Your task to perform on an android device: refresh tabs in the chrome app Image 0: 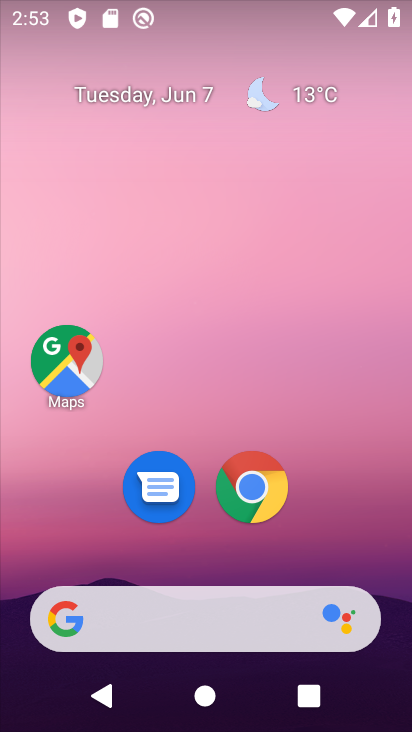
Step 0: drag from (276, 635) to (199, 137)
Your task to perform on an android device: refresh tabs in the chrome app Image 1: 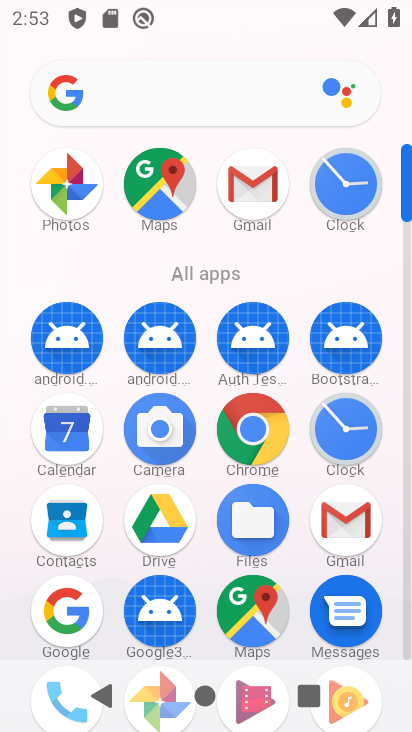
Step 1: click (257, 433)
Your task to perform on an android device: refresh tabs in the chrome app Image 2: 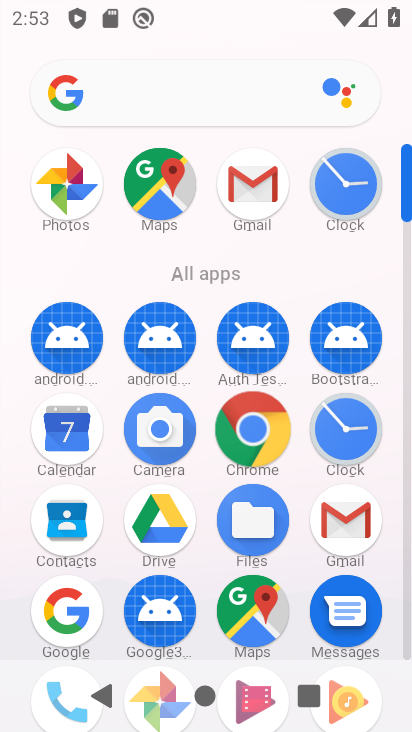
Step 2: click (251, 434)
Your task to perform on an android device: refresh tabs in the chrome app Image 3: 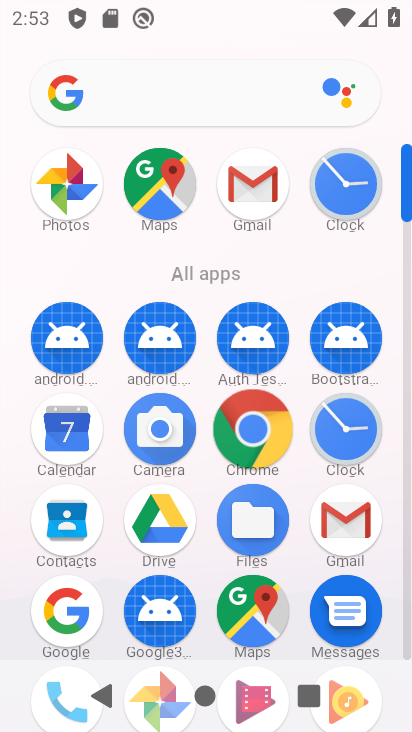
Step 3: click (240, 432)
Your task to perform on an android device: refresh tabs in the chrome app Image 4: 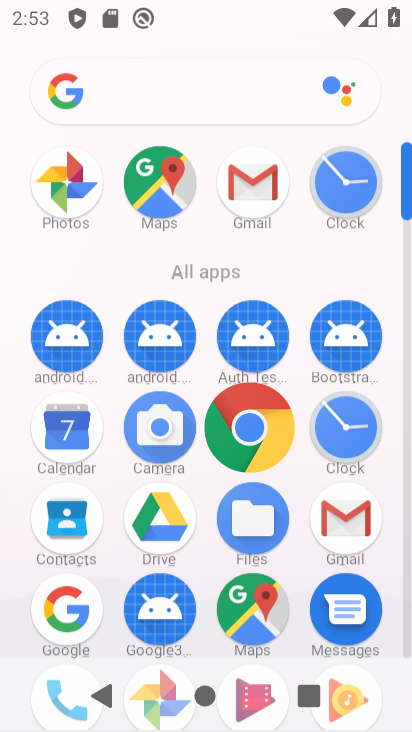
Step 4: click (233, 430)
Your task to perform on an android device: refresh tabs in the chrome app Image 5: 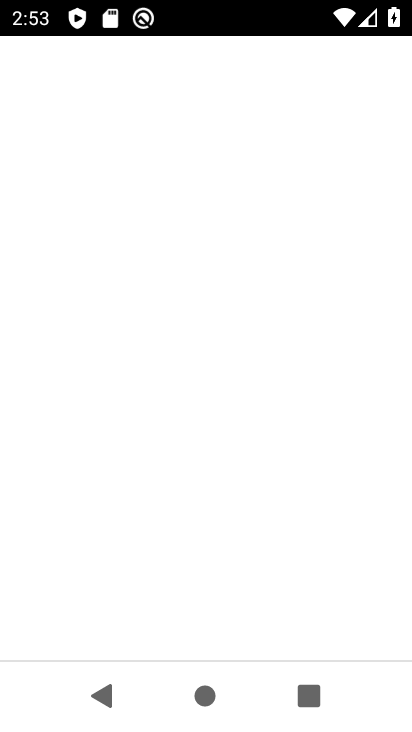
Step 5: click (242, 430)
Your task to perform on an android device: refresh tabs in the chrome app Image 6: 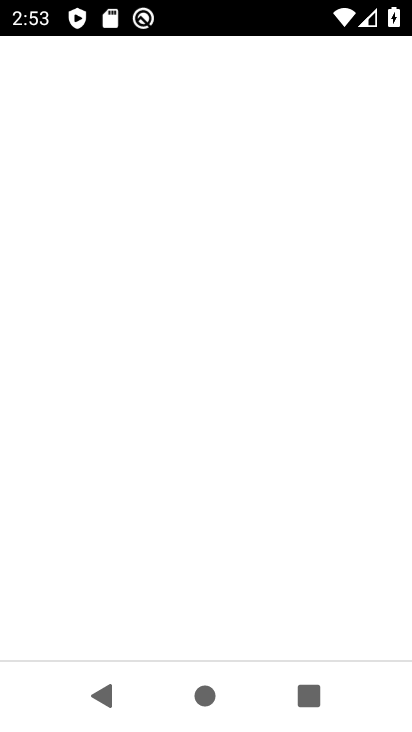
Step 6: click (242, 421)
Your task to perform on an android device: refresh tabs in the chrome app Image 7: 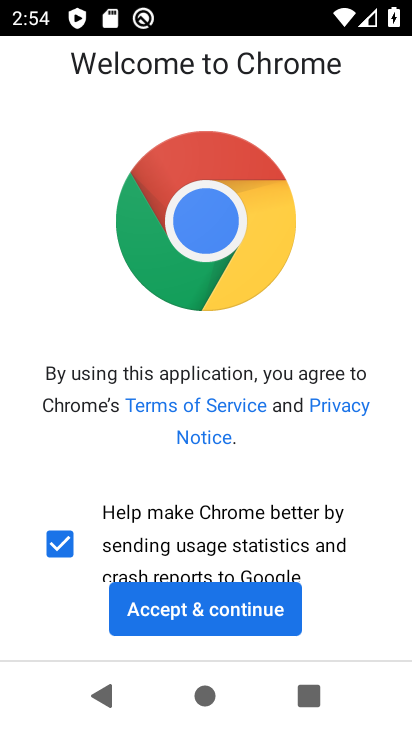
Step 7: click (223, 628)
Your task to perform on an android device: refresh tabs in the chrome app Image 8: 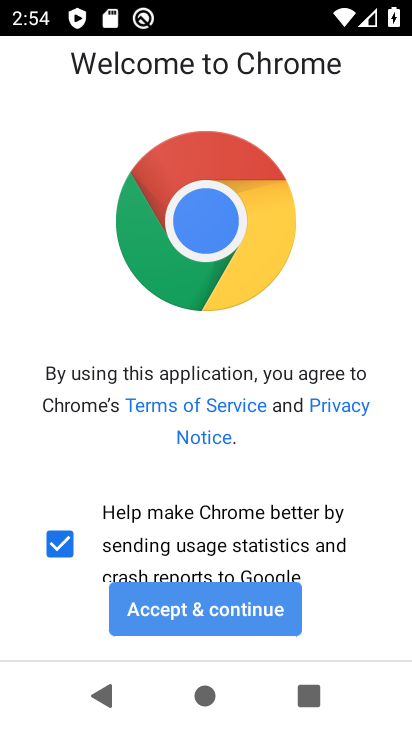
Step 8: click (217, 620)
Your task to perform on an android device: refresh tabs in the chrome app Image 9: 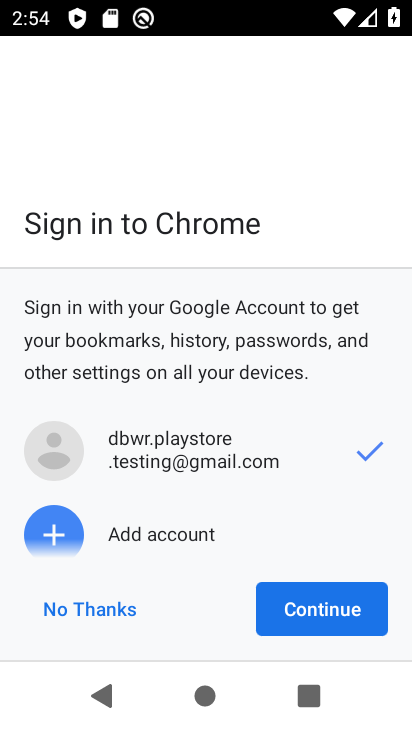
Step 9: click (215, 617)
Your task to perform on an android device: refresh tabs in the chrome app Image 10: 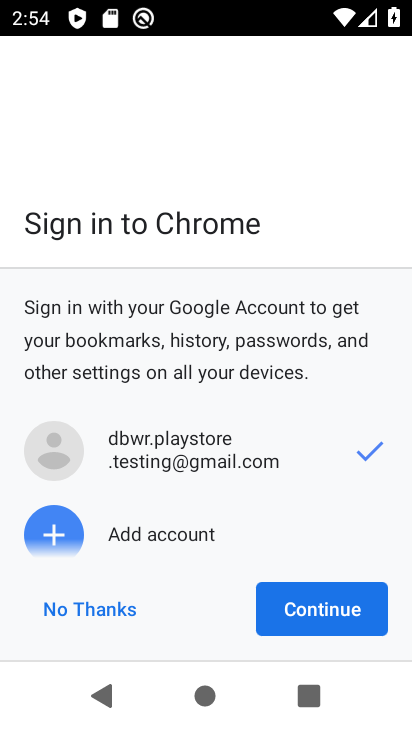
Step 10: click (218, 609)
Your task to perform on an android device: refresh tabs in the chrome app Image 11: 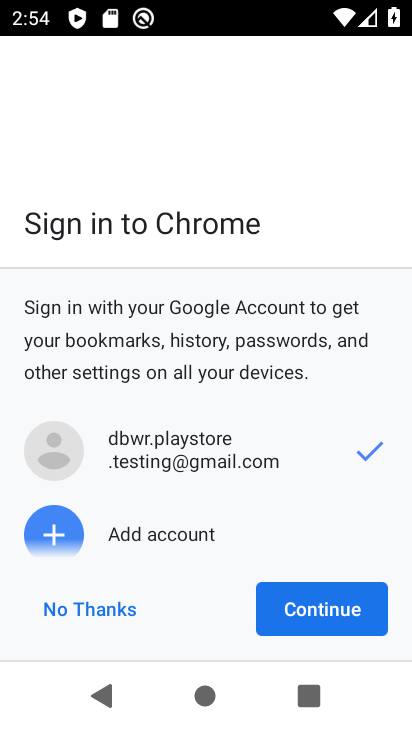
Step 11: click (327, 606)
Your task to perform on an android device: refresh tabs in the chrome app Image 12: 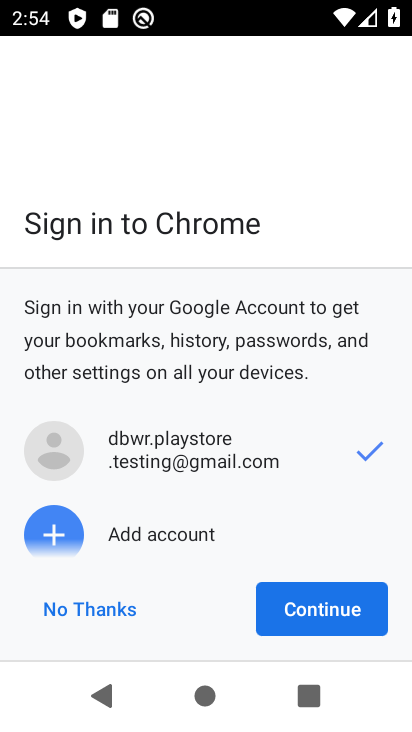
Step 12: click (328, 606)
Your task to perform on an android device: refresh tabs in the chrome app Image 13: 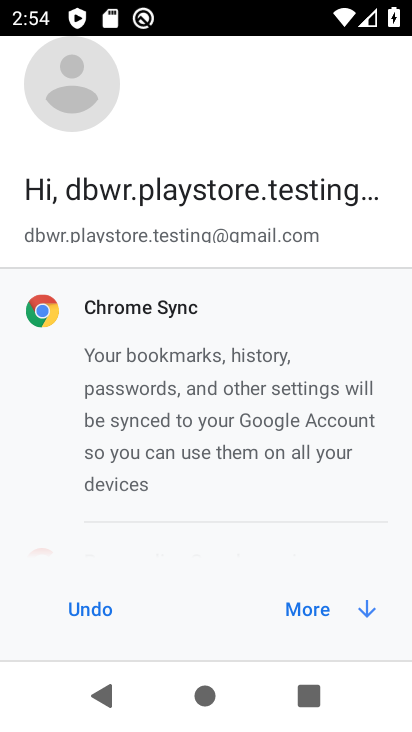
Step 13: click (329, 607)
Your task to perform on an android device: refresh tabs in the chrome app Image 14: 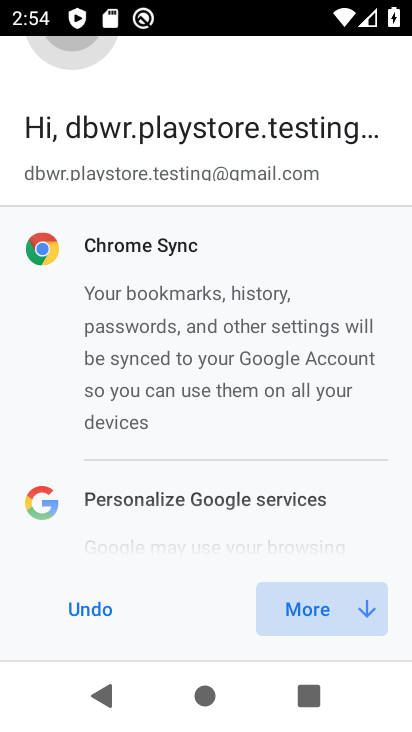
Step 14: click (329, 611)
Your task to perform on an android device: refresh tabs in the chrome app Image 15: 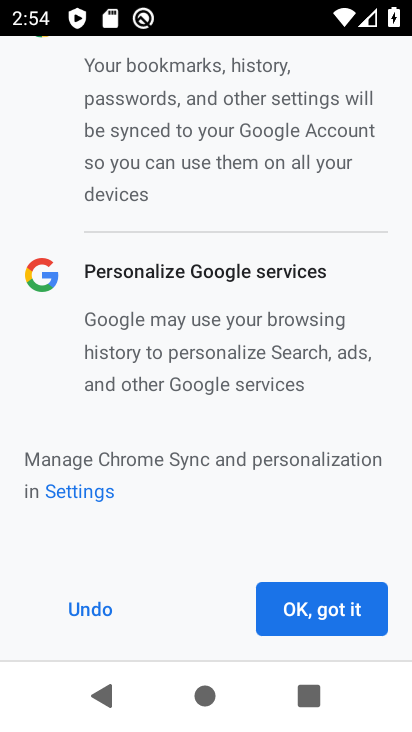
Step 15: click (328, 616)
Your task to perform on an android device: refresh tabs in the chrome app Image 16: 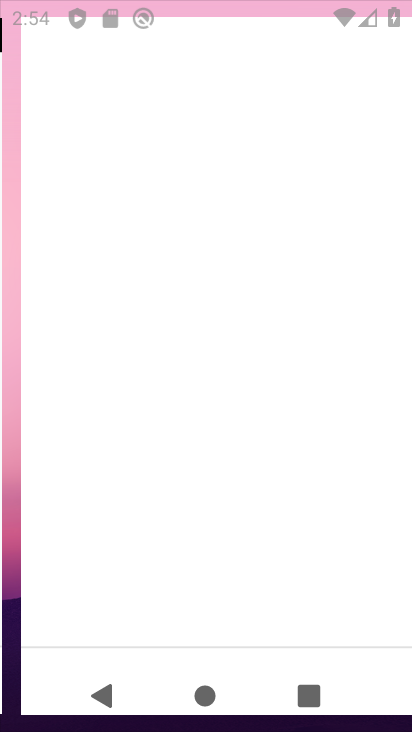
Step 16: click (323, 611)
Your task to perform on an android device: refresh tabs in the chrome app Image 17: 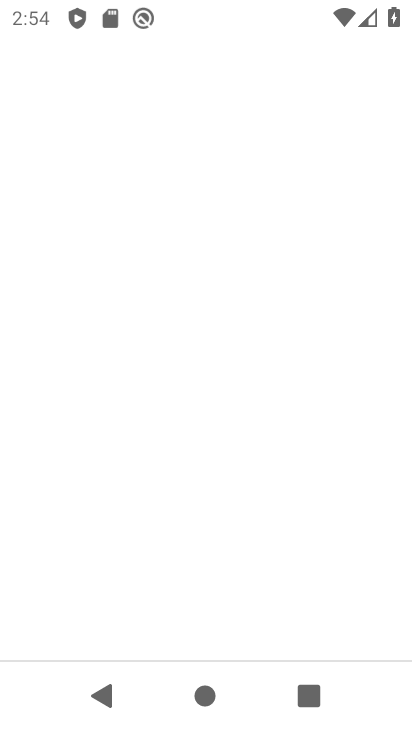
Step 17: click (326, 610)
Your task to perform on an android device: refresh tabs in the chrome app Image 18: 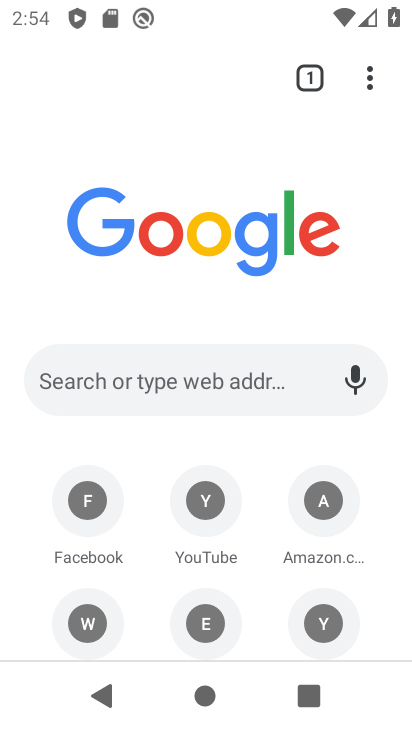
Step 18: click (370, 81)
Your task to perform on an android device: refresh tabs in the chrome app Image 19: 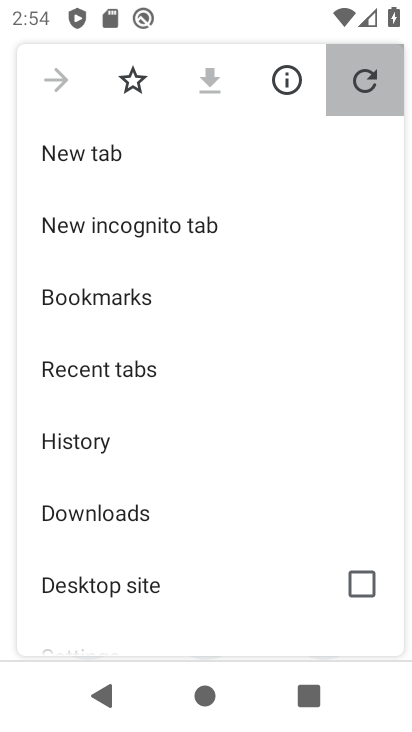
Step 19: click (361, 84)
Your task to perform on an android device: refresh tabs in the chrome app Image 20: 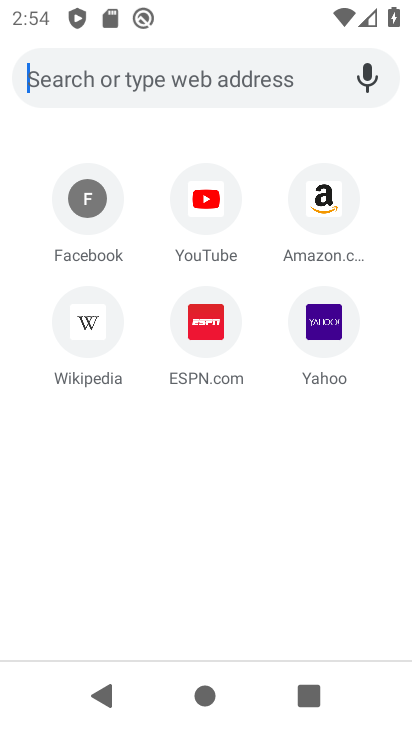
Step 20: task complete